Your task to perform on an android device: Open network settings Image 0: 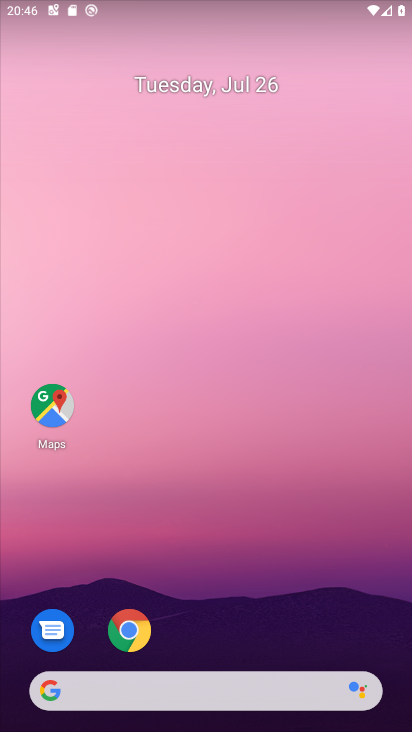
Step 0: drag from (389, 644) to (348, 139)
Your task to perform on an android device: Open network settings Image 1: 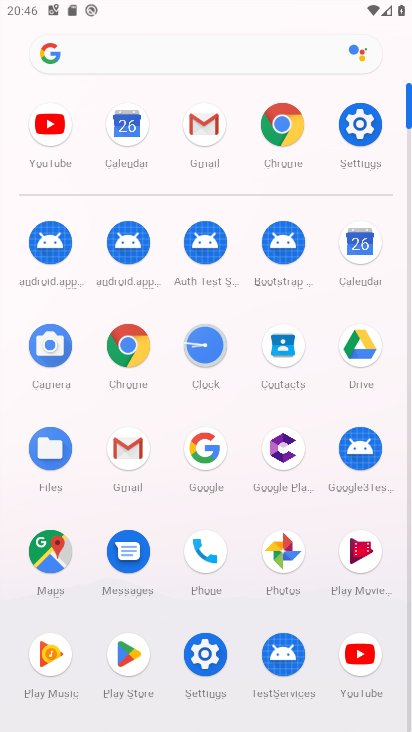
Step 1: click (365, 121)
Your task to perform on an android device: Open network settings Image 2: 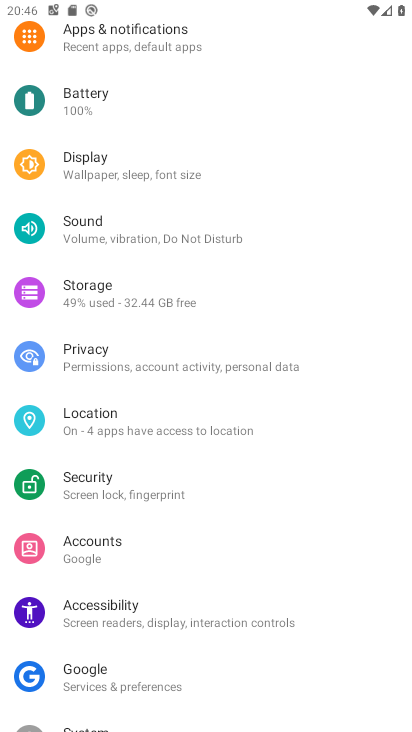
Step 2: drag from (144, 40) to (204, 524)
Your task to perform on an android device: Open network settings Image 3: 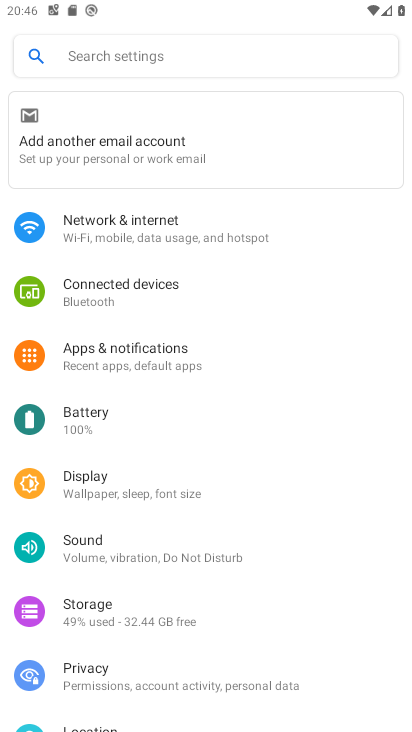
Step 3: click (89, 224)
Your task to perform on an android device: Open network settings Image 4: 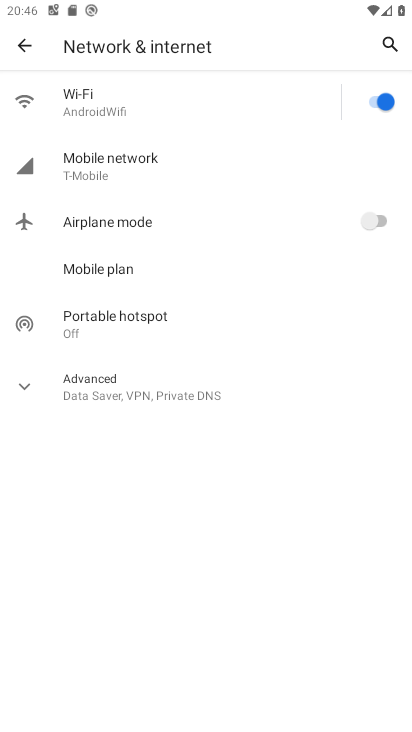
Step 4: click (98, 161)
Your task to perform on an android device: Open network settings Image 5: 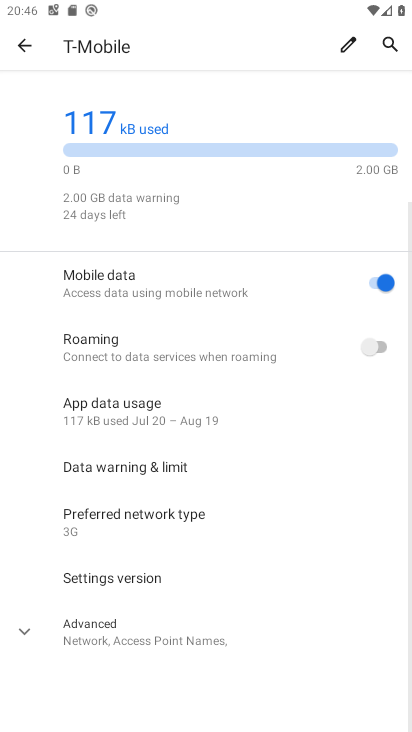
Step 5: click (23, 625)
Your task to perform on an android device: Open network settings Image 6: 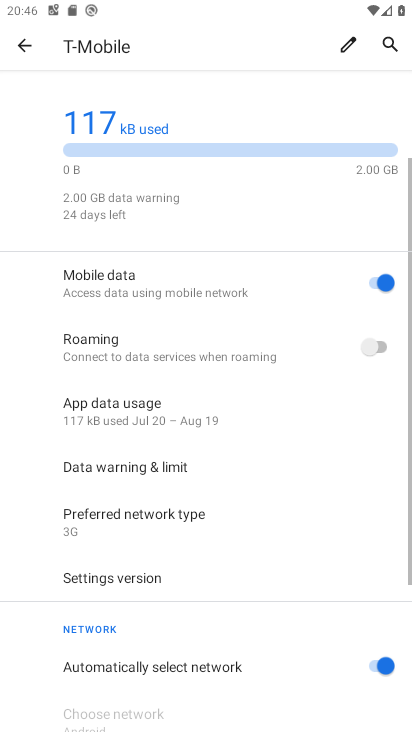
Step 6: task complete